Your task to perform on an android device: see tabs open on other devices in the chrome app Image 0: 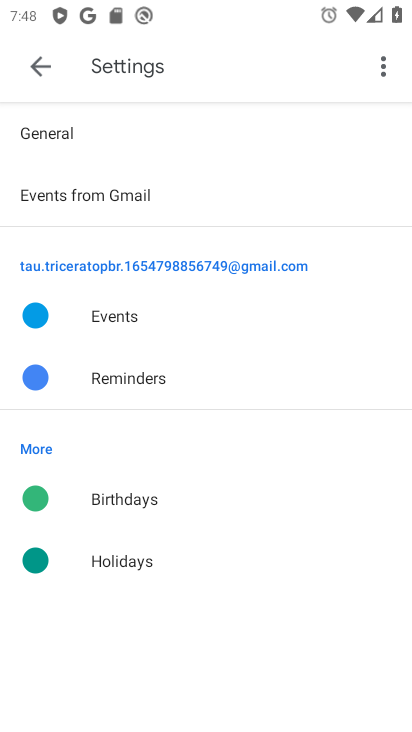
Step 0: press home button
Your task to perform on an android device: see tabs open on other devices in the chrome app Image 1: 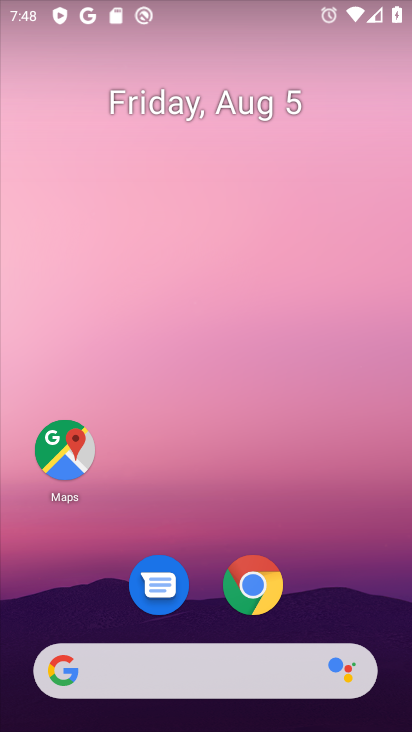
Step 1: click (258, 579)
Your task to perform on an android device: see tabs open on other devices in the chrome app Image 2: 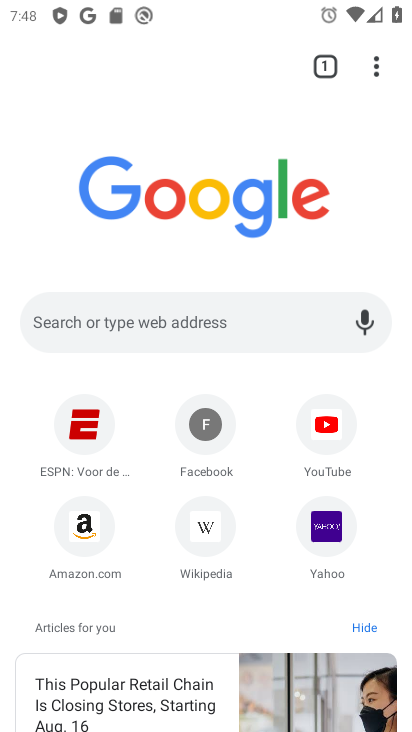
Step 2: click (373, 73)
Your task to perform on an android device: see tabs open on other devices in the chrome app Image 3: 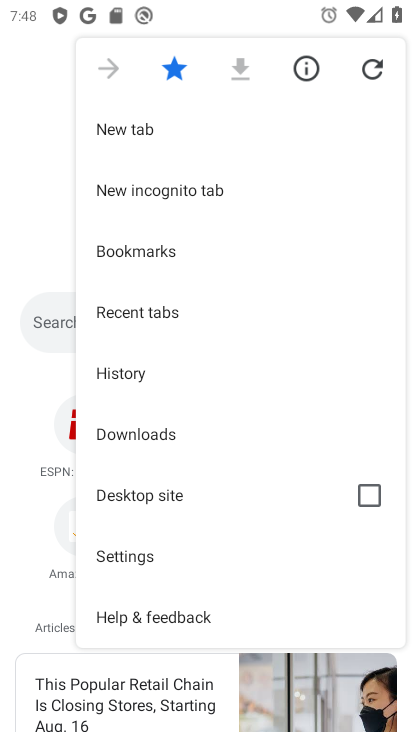
Step 3: click (182, 314)
Your task to perform on an android device: see tabs open on other devices in the chrome app Image 4: 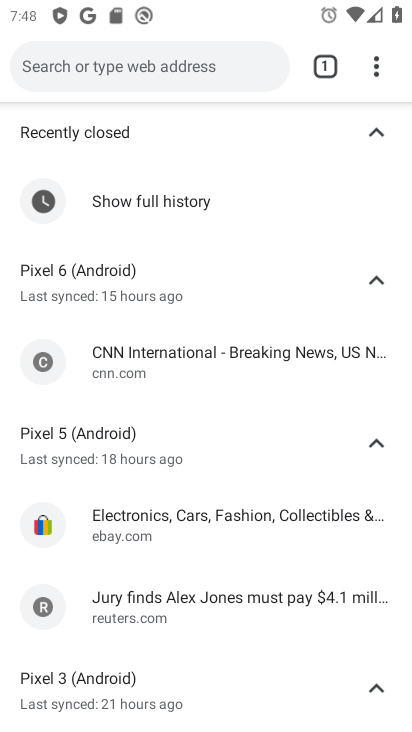
Step 4: task complete